Your task to perform on an android device: Open Android settings Image 0: 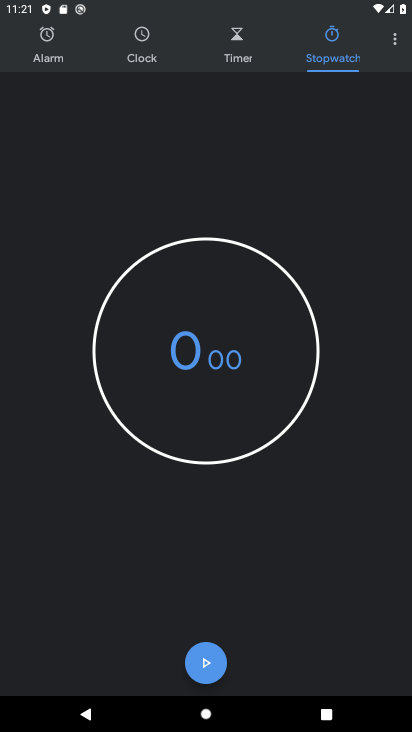
Step 0: press home button
Your task to perform on an android device: Open Android settings Image 1: 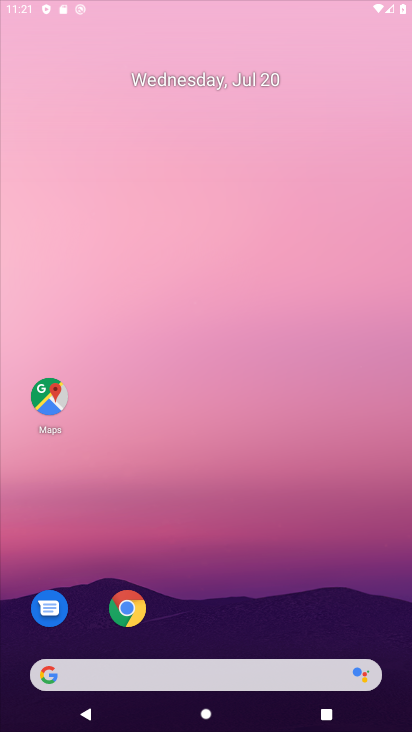
Step 1: drag from (364, 567) to (235, 103)
Your task to perform on an android device: Open Android settings Image 2: 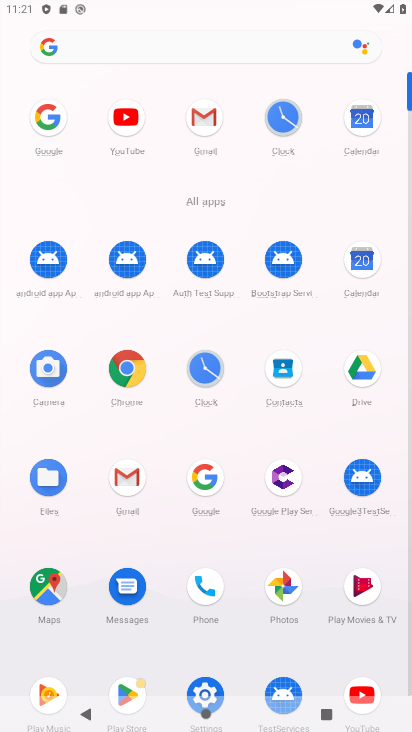
Step 2: click (203, 685)
Your task to perform on an android device: Open Android settings Image 3: 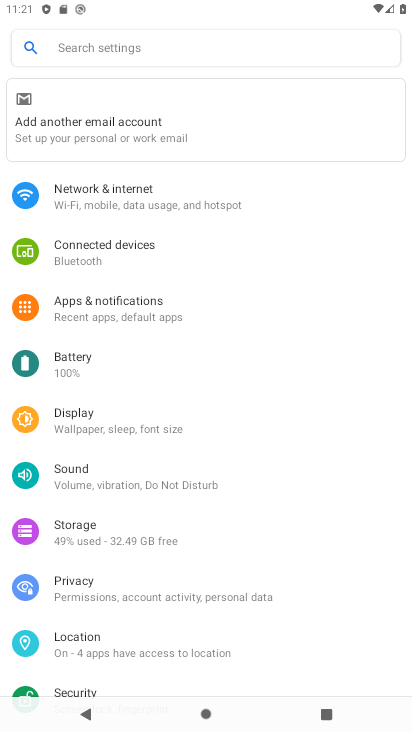
Step 3: task complete